Your task to perform on an android device: toggle pop-ups in chrome Image 0: 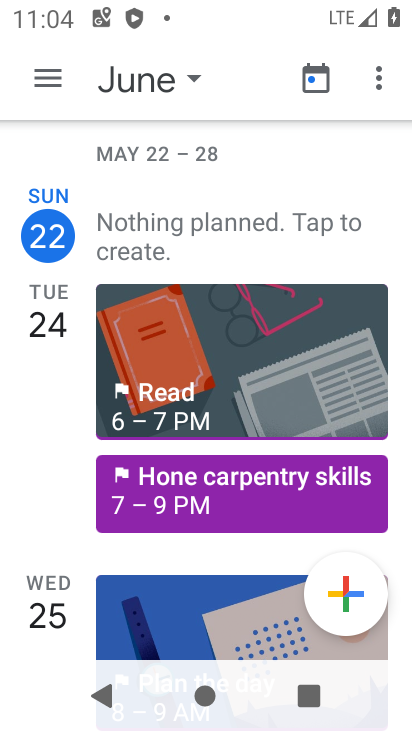
Step 0: press home button
Your task to perform on an android device: toggle pop-ups in chrome Image 1: 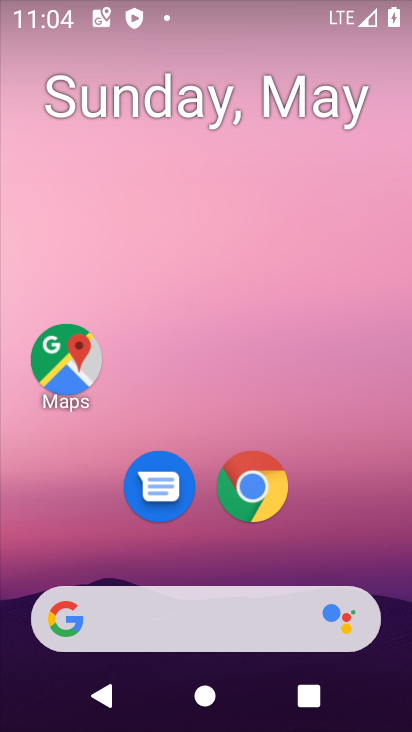
Step 1: drag from (182, 568) to (215, 97)
Your task to perform on an android device: toggle pop-ups in chrome Image 2: 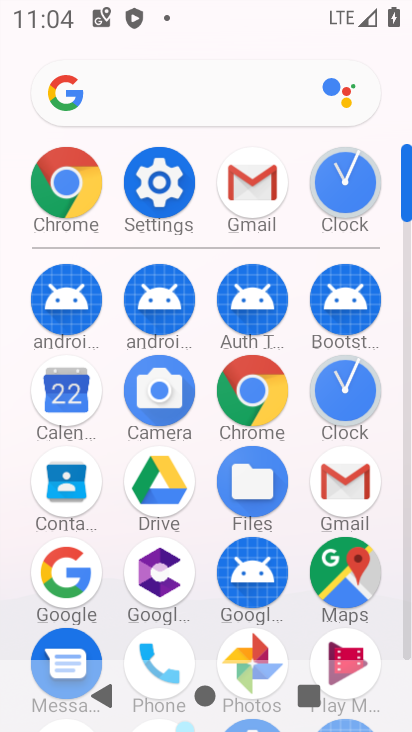
Step 2: click (62, 188)
Your task to perform on an android device: toggle pop-ups in chrome Image 3: 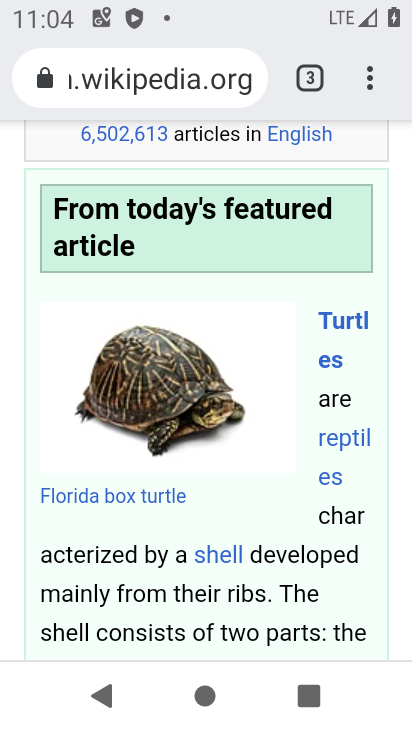
Step 3: click (370, 97)
Your task to perform on an android device: toggle pop-ups in chrome Image 4: 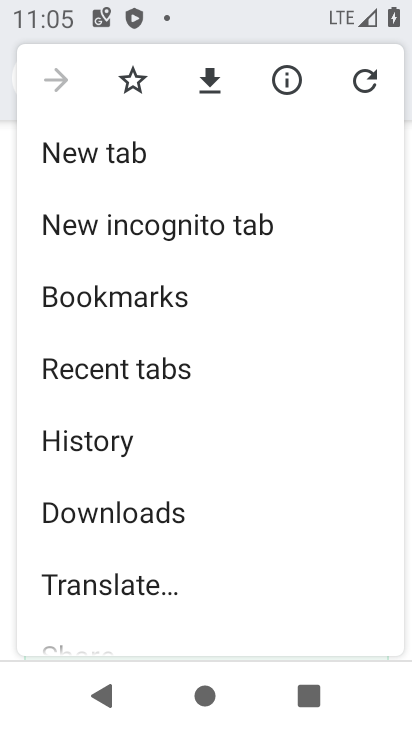
Step 4: drag from (84, 600) to (109, 328)
Your task to perform on an android device: toggle pop-ups in chrome Image 5: 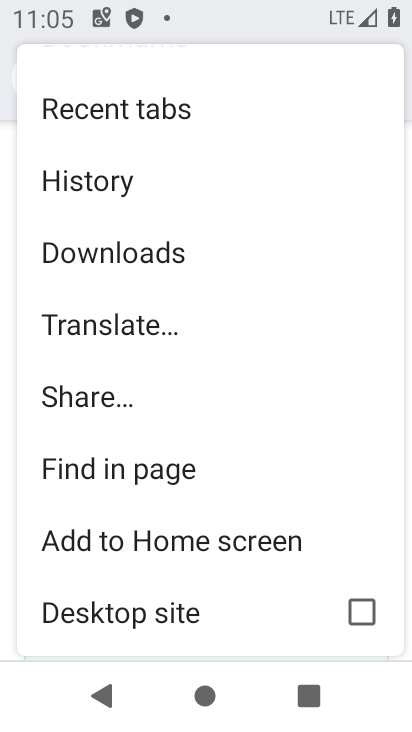
Step 5: drag from (137, 592) to (174, 334)
Your task to perform on an android device: toggle pop-ups in chrome Image 6: 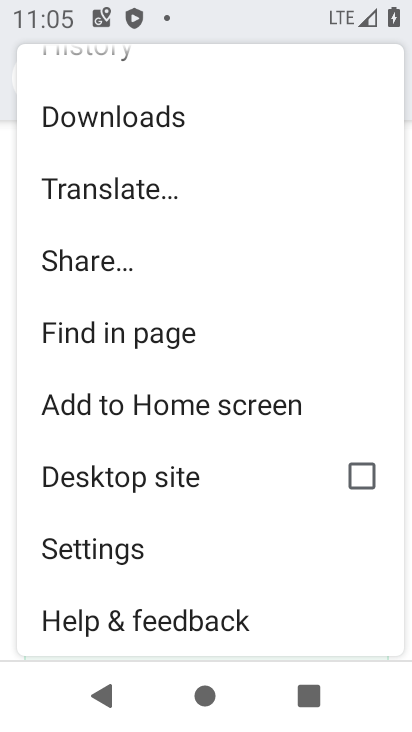
Step 6: click (115, 551)
Your task to perform on an android device: toggle pop-ups in chrome Image 7: 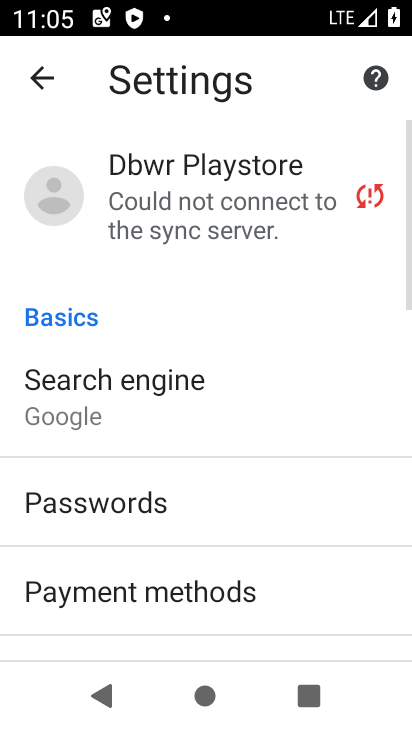
Step 7: drag from (128, 565) to (139, 338)
Your task to perform on an android device: toggle pop-ups in chrome Image 8: 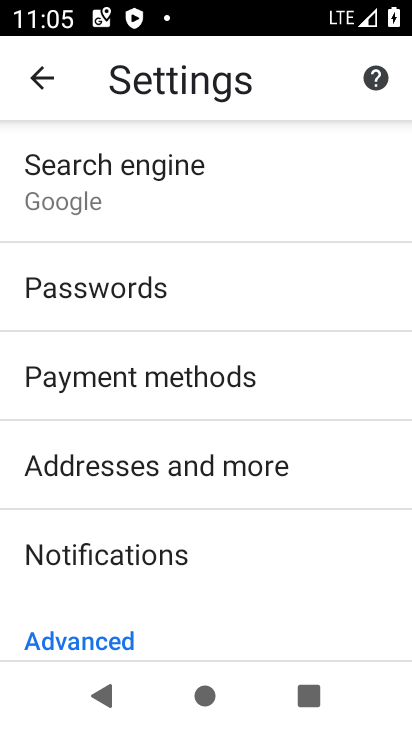
Step 8: drag from (156, 581) to (188, 347)
Your task to perform on an android device: toggle pop-ups in chrome Image 9: 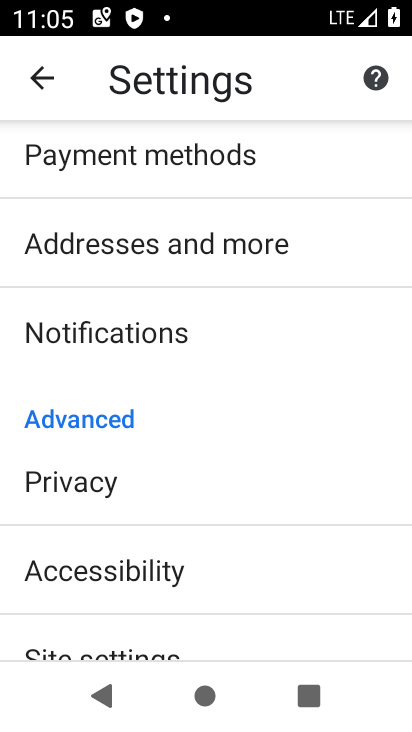
Step 9: drag from (207, 574) to (205, 336)
Your task to perform on an android device: toggle pop-ups in chrome Image 10: 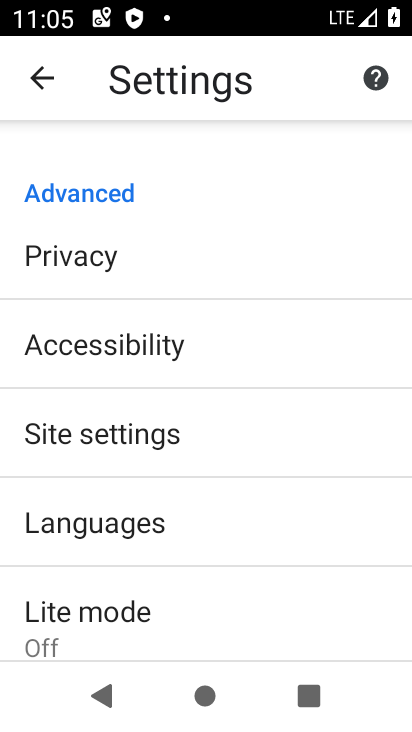
Step 10: drag from (152, 615) to (194, 310)
Your task to perform on an android device: toggle pop-ups in chrome Image 11: 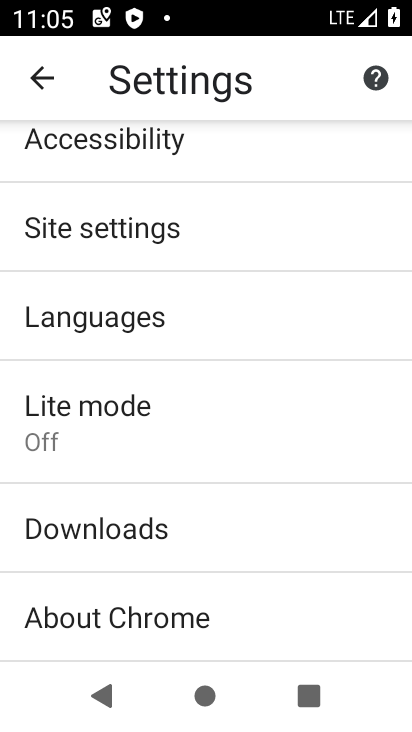
Step 11: click (108, 245)
Your task to perform on an android device: toggle pop-ups in chrome Image 12: 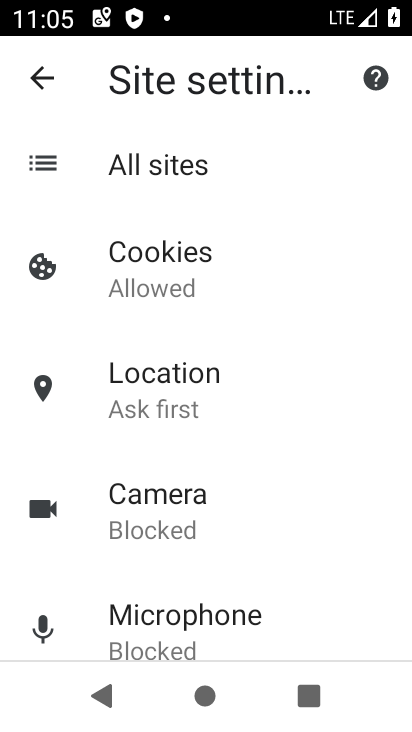
Step 12: drag from (180, 607) to (201, 356)
Your task to perform on an android device: toggle pop-ups in chrome Image 13: 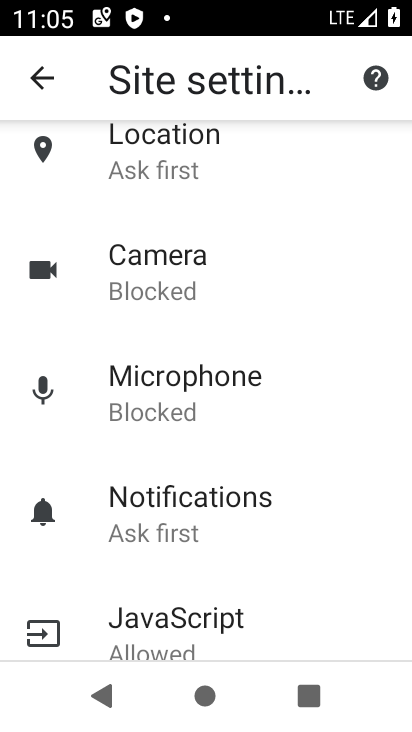
Step 13: drag from (234, 622) to (242, 347)
Your task to perform on an android device: toggle pop-ups in chrome Image 14: 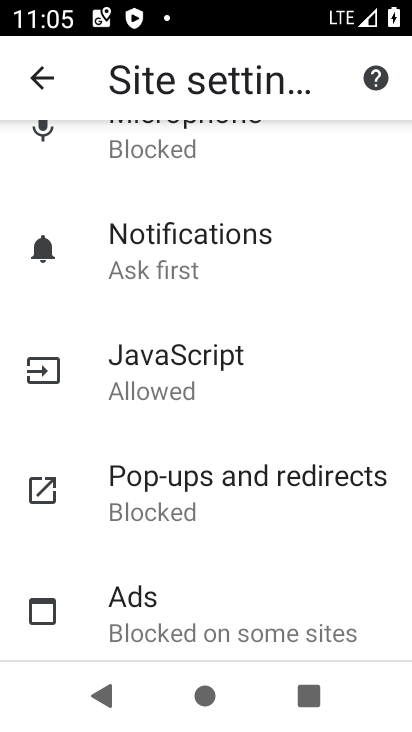
Step 14: click (199, 498)
Your task to perform on an android device: toggle pop-ups in chrome Image 15: 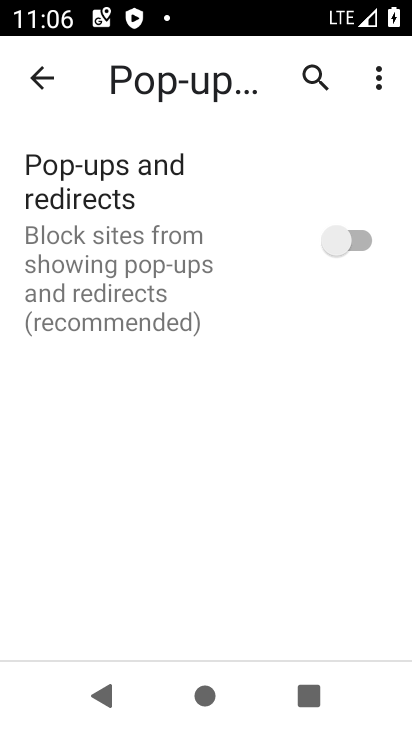
Step 15: click (361, 235)
Your task to perform on an android device: toggle pop-ups in chrome Image 16: 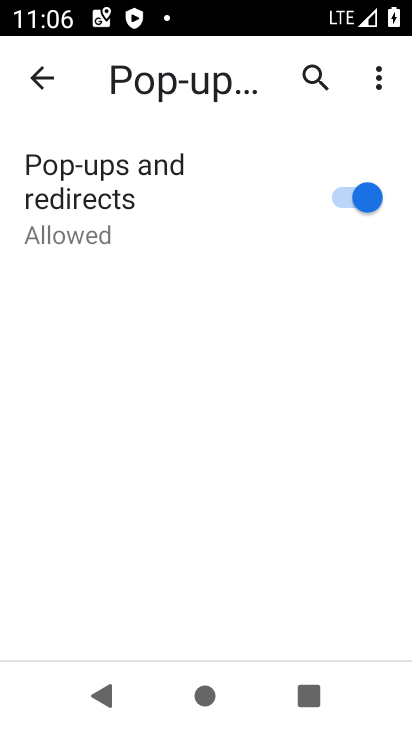
Step 16: task complete